Your task to perform on an android device: What's the weather today? Image 0: 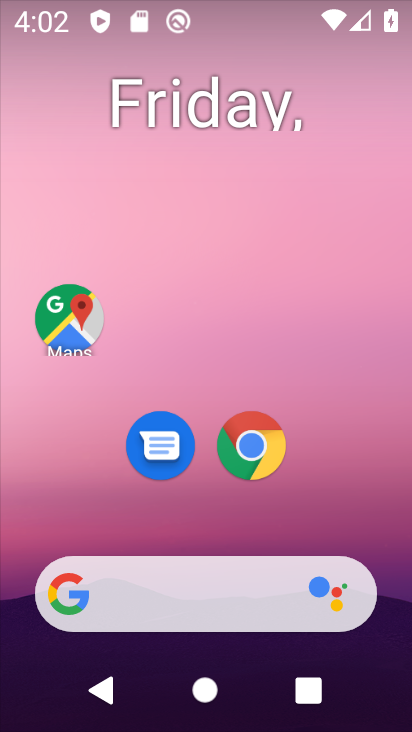
Step 0: press home button
Your task to perform on an android device: What's the weather today? Image 1: 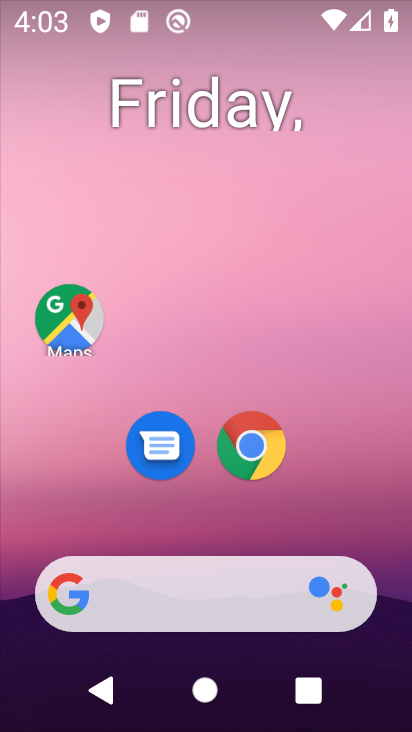
Step 1: click (65, 611)
Your task to perform on an android device: What's the weather today? Image 2: 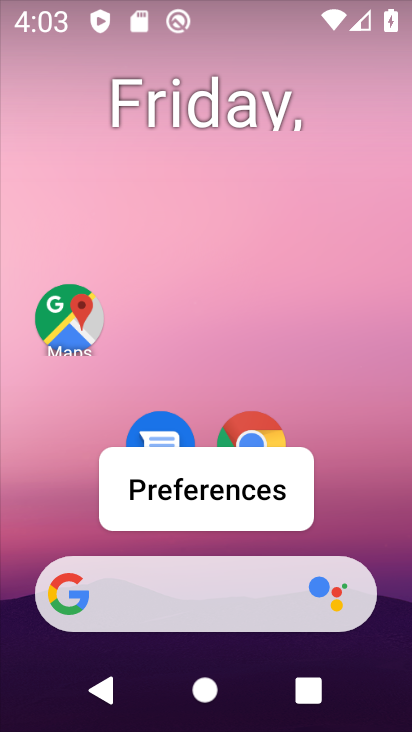
Step 2: click (69, 595)
Your task to perform on an android device: What's the weather today? Image 3: 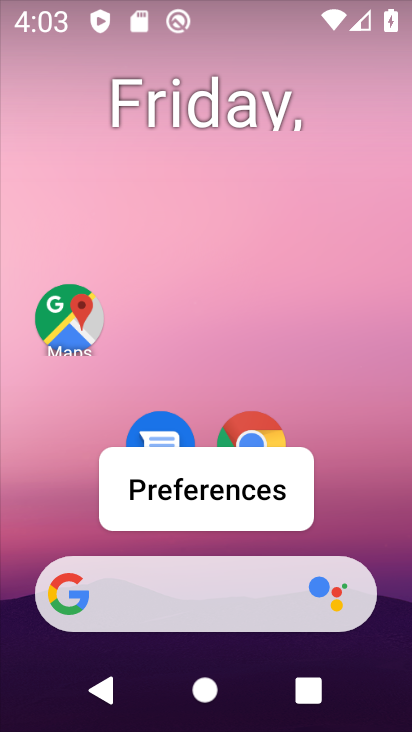
Step 3: click (69, 595)
Your task to perform on an android device: What's the weather today? Image 4: 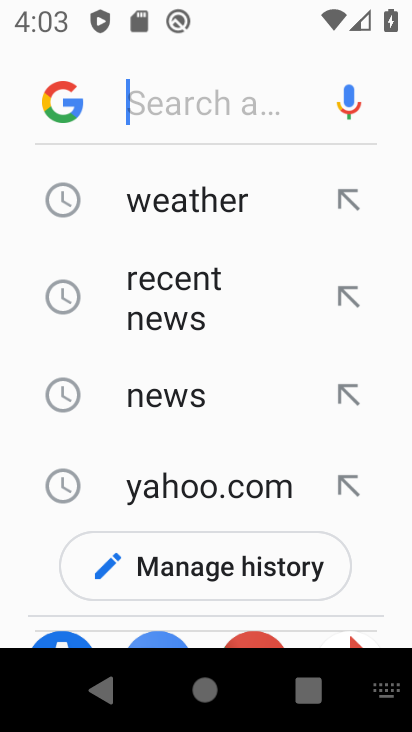
Step 4: type "weather today"
Your task to perform on an android device: What's the weather today? Image 5: 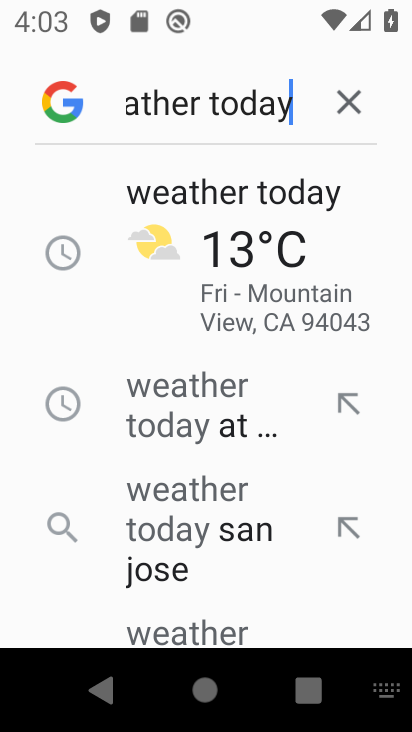
Step 5: click (269, 191)
Your task to perform on an android device: What's the weather today? Image 6: 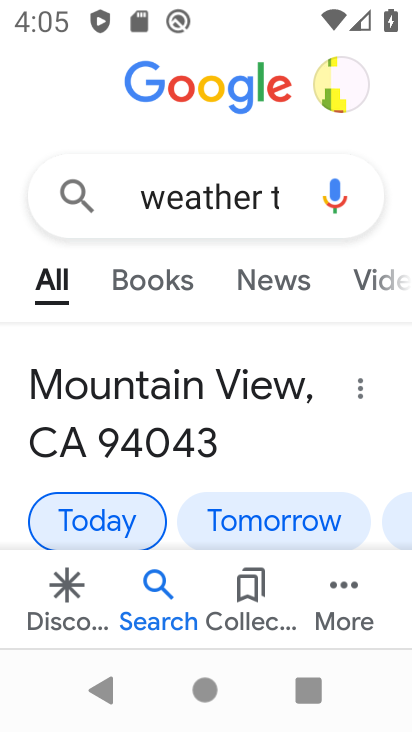
Step 6: task complete